Your task to perform on an android device: Go to notification settings Image 0: 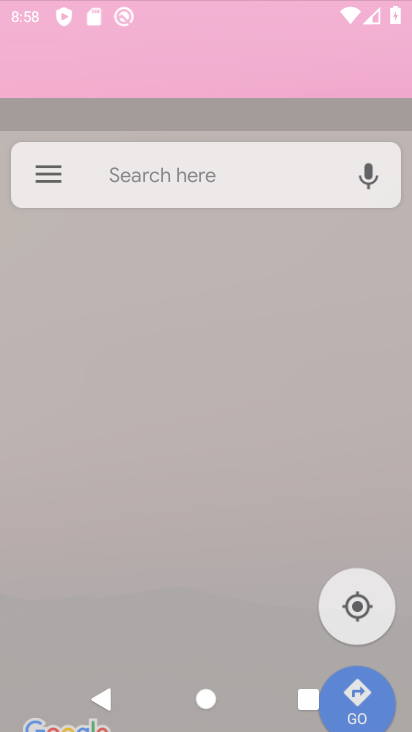
Step 0: click (308, 44)
Your task to perform on an android device: Go to notification settings Image 1: 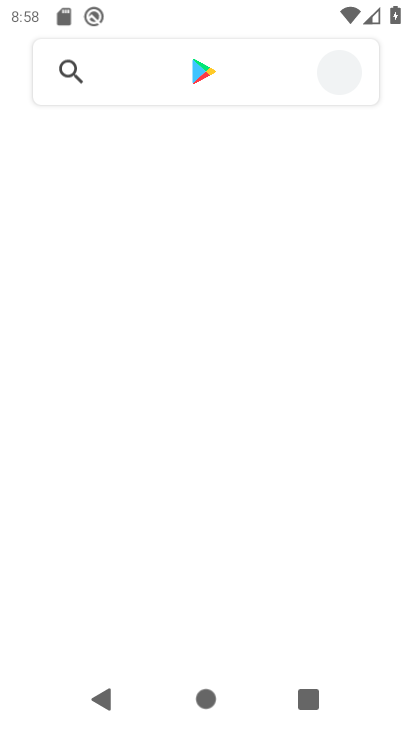
Step 1: press home button
Your task to perform on an android device: Go to notification settings Image 2: 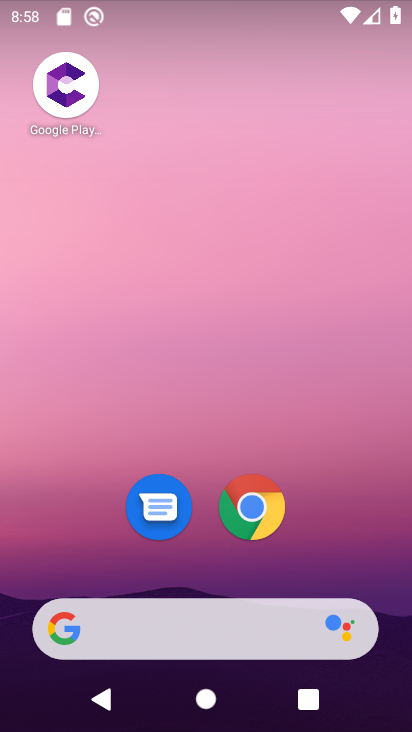
Step 2: drag from (323, 201) to (290, 63)
Your task to perform on an android device: Go to notification settings Image 3: 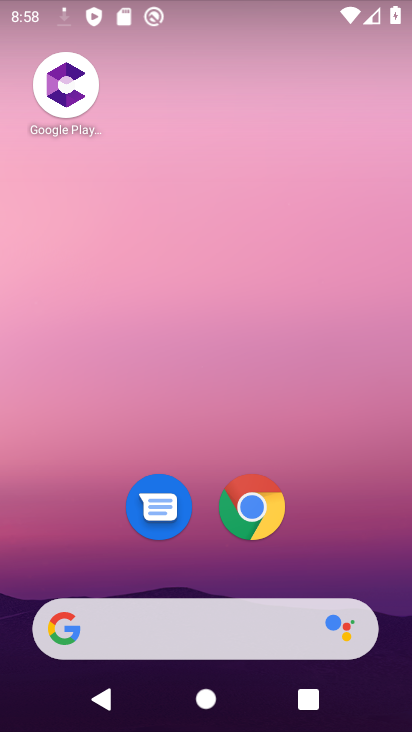
Step 3: drag from (356, 410) to (329, 54)
Your task to perform on an android device: Go to notification settings Image 4: 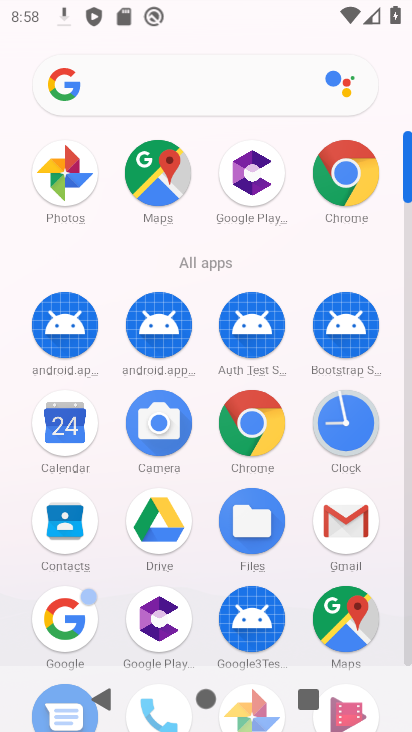
Step 4: drag from (375, 512) to (409, 197)
Your task to perform on an android device: Go to notification settings Image 5: 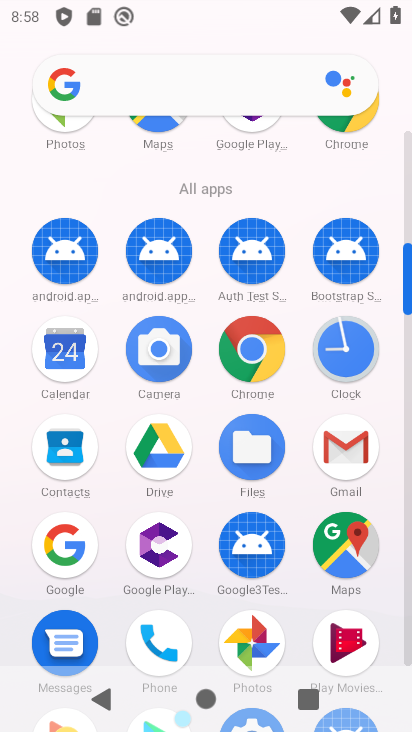
Step 5: drag from (402, 526) to (407, 322)
Your task to perform on an android device: Go to notification settings Image 6: 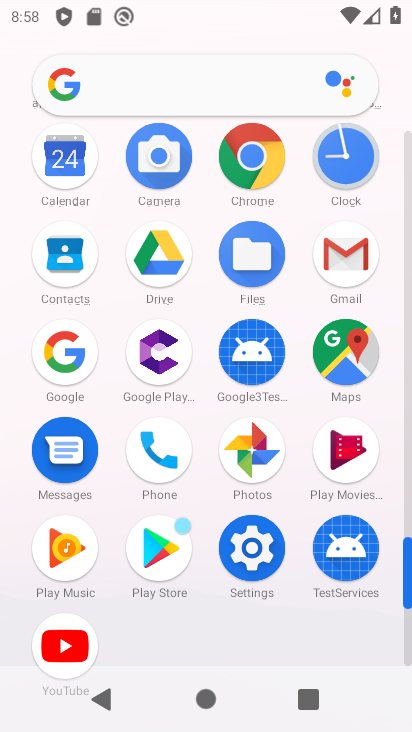
Step 6: drag from (264, 612) to (229, 533)
Your task to perform on an android device: Go to notification settings Image 7: 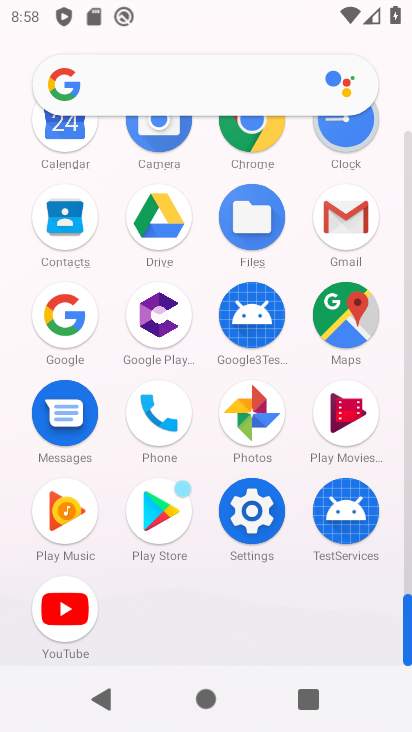
Step 7: click (262, 551)
Your task to perform on an android device: Go to notification settings Image 8: 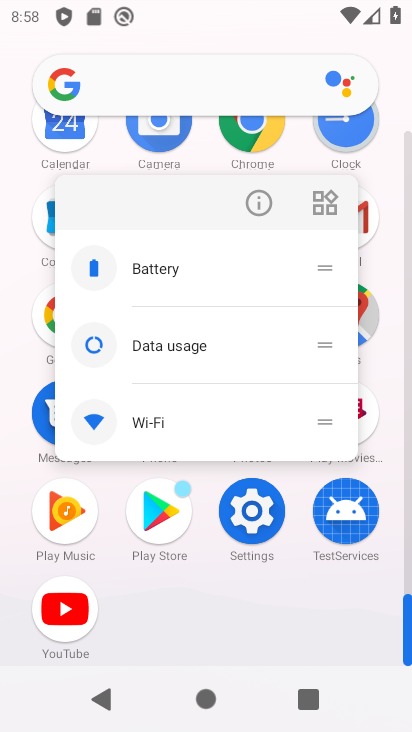
Step 8: click (256, 526)
Your task to perform on an android device: Go to notification settings Image 9: 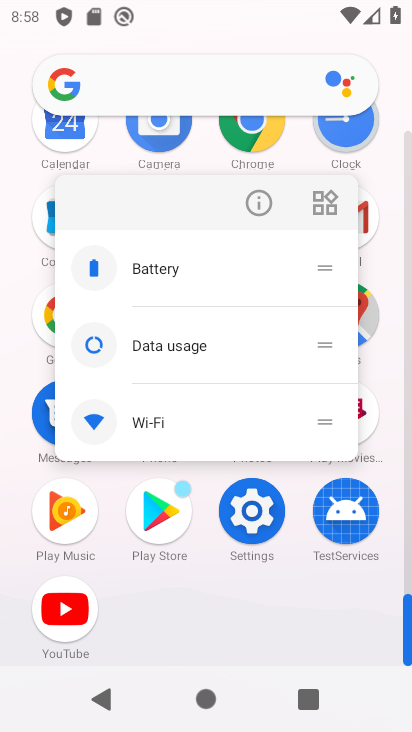
Step 9: click (256, 525)
Your task to perform on an android device: Go to notification settings Image 10: 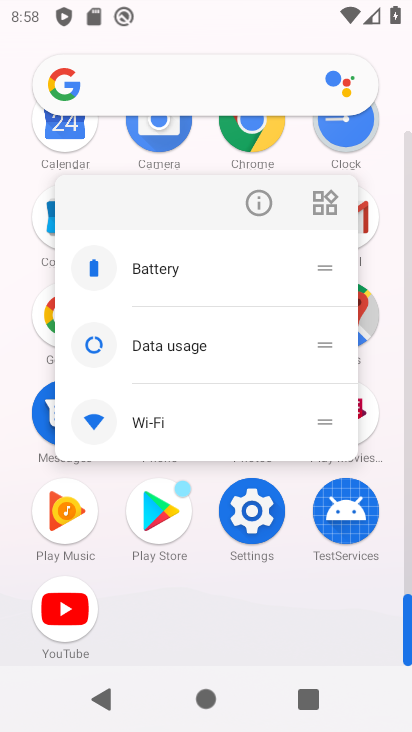
Step 10: click (256, 525)
Your task to perform on an android device: Go to notification settings Image 11: 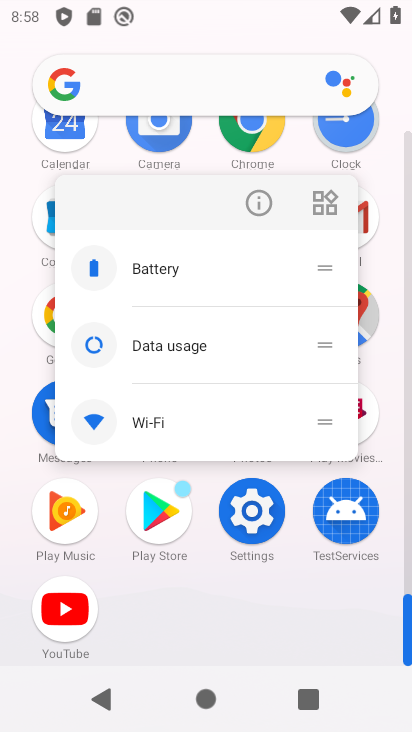
Step 11: click (256, 524)
Your task to perform on an android device: Go to notification settings Image 12: 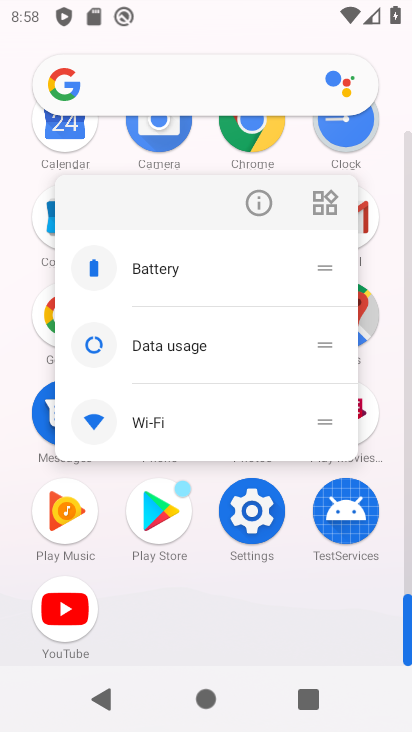
Step 12: click (256, 524)
Your task to perform on an android device: Go to notification settings Image 13: 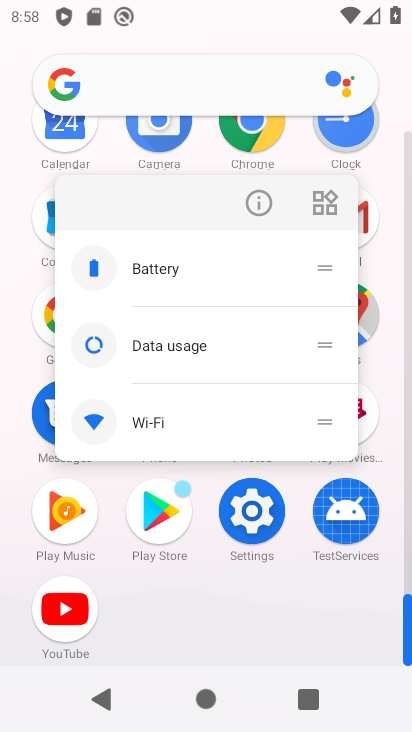
Step 13: click (256, 524)
Your task to perform on an android device: Go to notification settings Image 14: 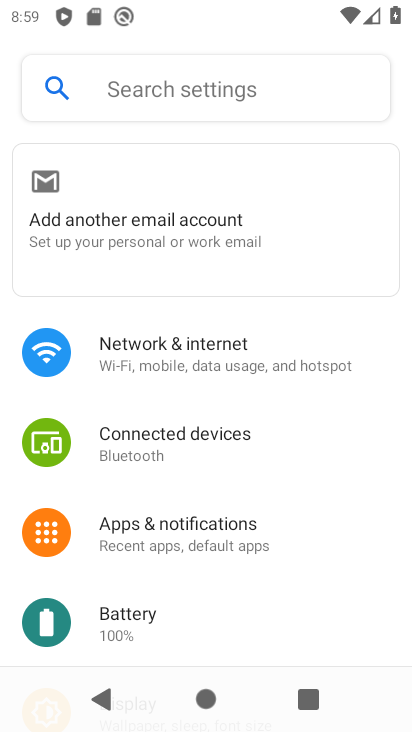
Step 14: drag from (208, 534) to (244, 262)
Your task to perform on an android device: Go to notification settings Image 15: 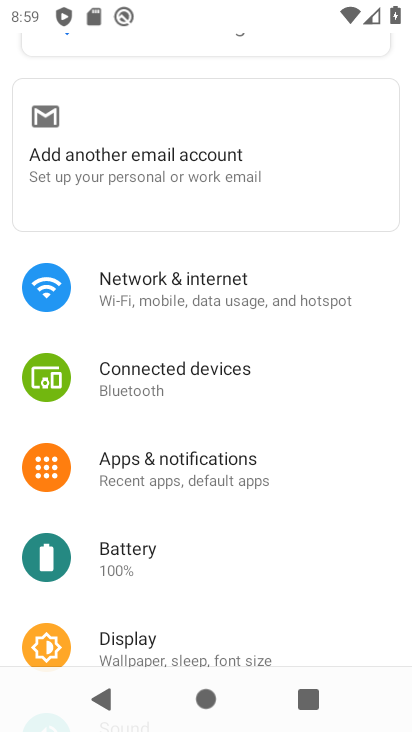
Step 15: click (200, 469)
Your task to perform on an android device: Go to notification settings Image 16: 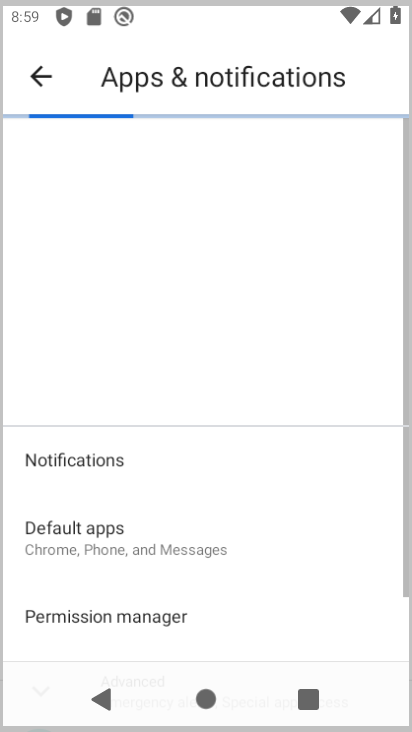
Step 16: click (200, 469)
Your task to perform on an android device: Go to notification settings Image 17: 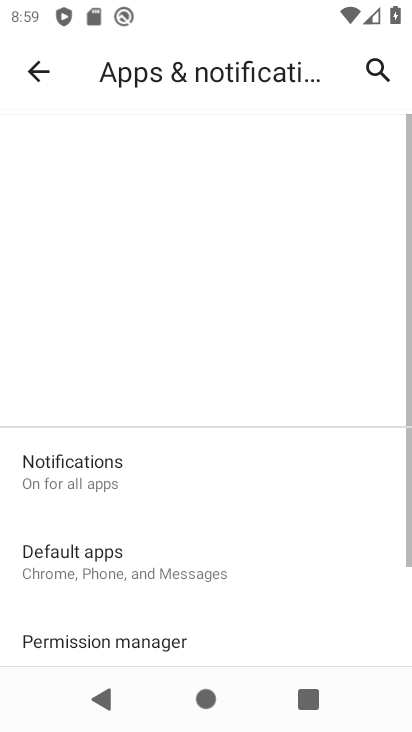
Step 17: click (81, 480)
Your task to perform on an android device: Go to notification settings Image 18: 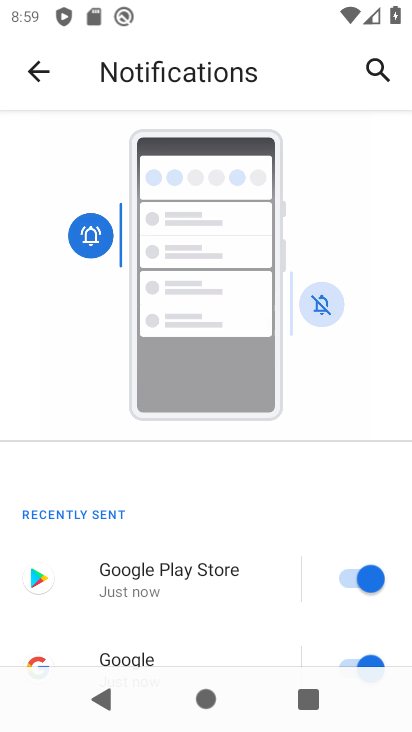
Step 18: task complete